Your task to perform on an android device: turn notification dots off Image 0: 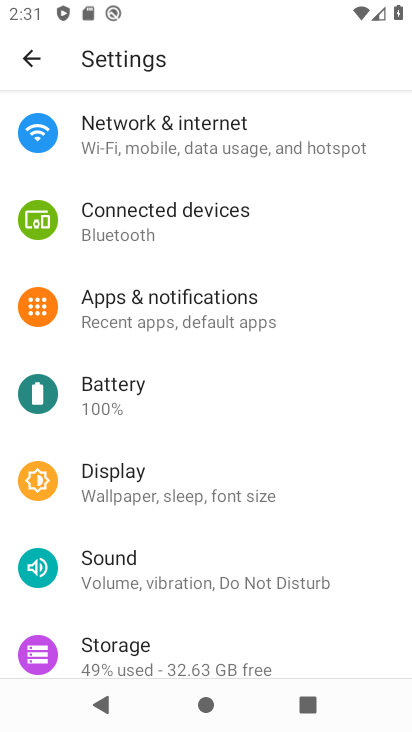
Step 0: press back button
Your task to perform on an android device: turn notification dots off Image 1: 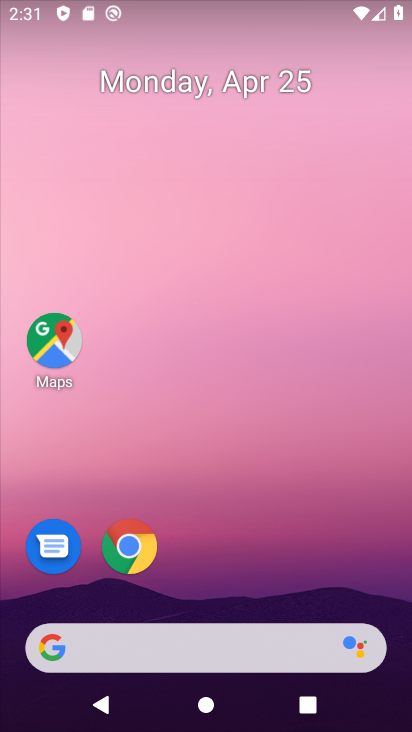
Step 1: drag from (178, 612) to (304, 43)
Your task to perform on an android device: turn notification dots off Image 2: 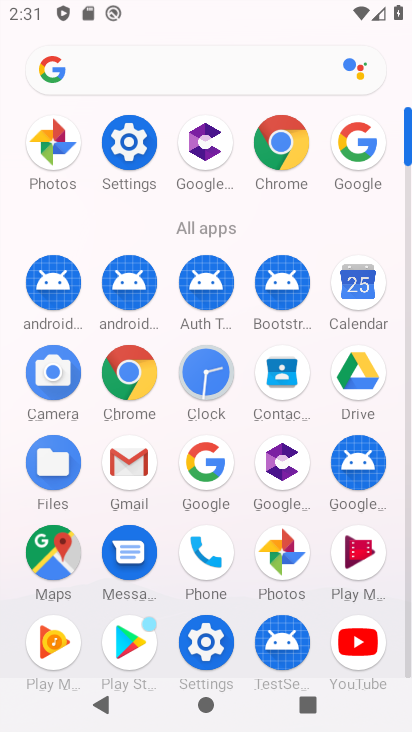
Step 2: click (209, 650)
Your task to perform on an android device: turn notification dots off Image 3: 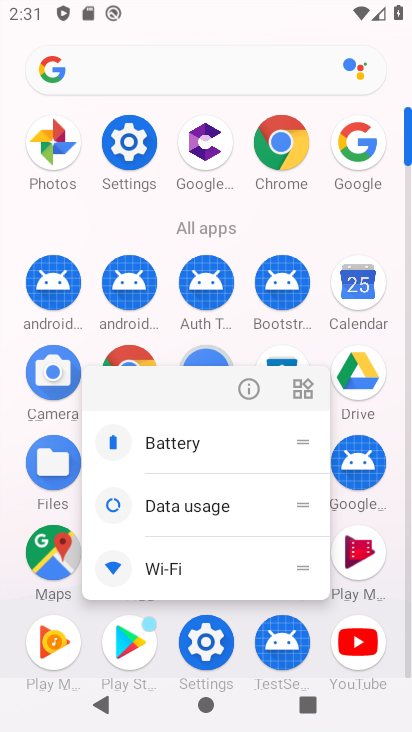
Step 3: click (208, 644)
Your task to perform on an android device: turn notification dots off Image 4: 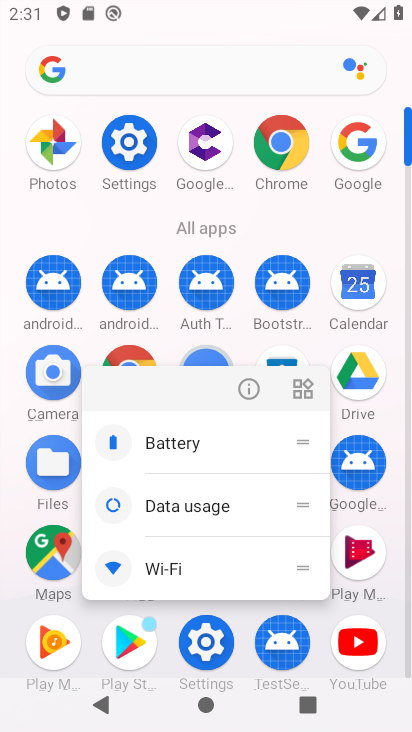
Step 4: click (204, 642)
Your task to perform on an android device: turn notification dots off Image 5: 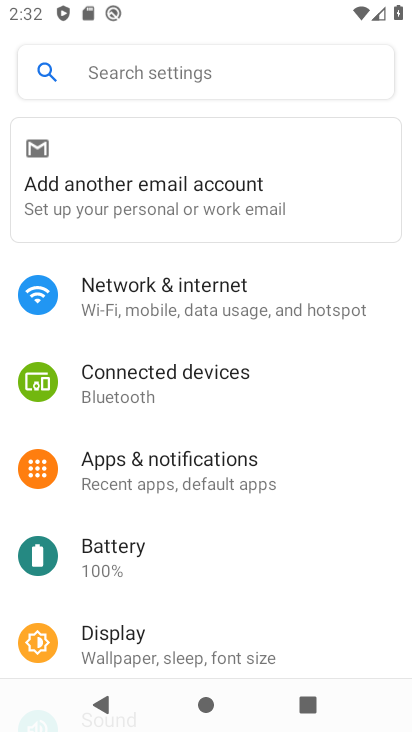
Step 5: drag from (183, 637) to (215, 440)
Your task to perform on an android device: turn notification dots off Image 6: 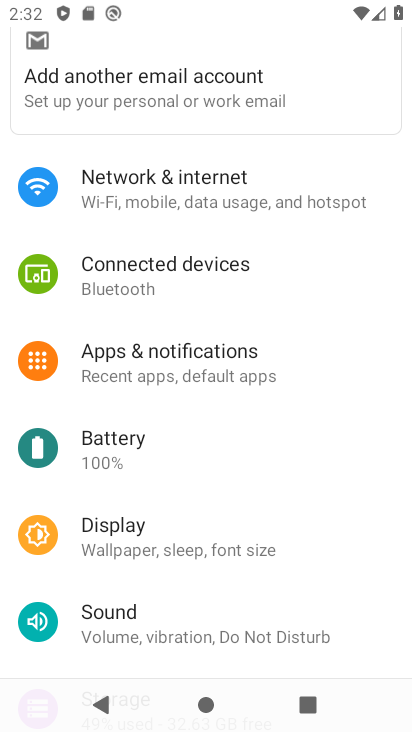
Step 6: click (227, 367)
Your task to perform on an android device: turn notification dots off Image 7: 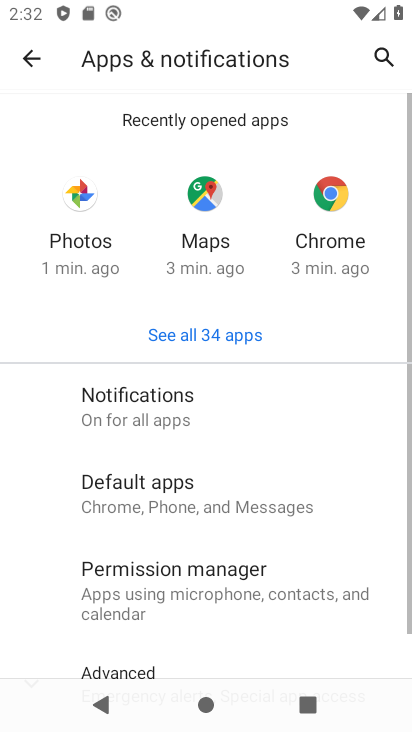
Step 7: drag from (213, 580) to (278, 298)
Your task to perform on an android device: turn notification dots off Image 8: 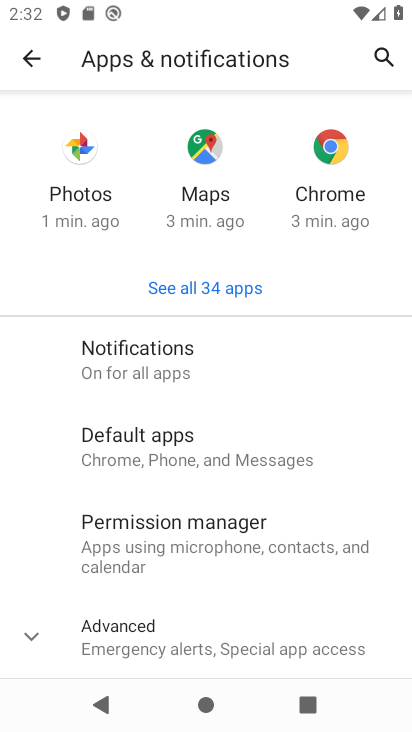
Step 8: click (237, 379)
Your task to perform on an android device: turn notification dots off Image 9: 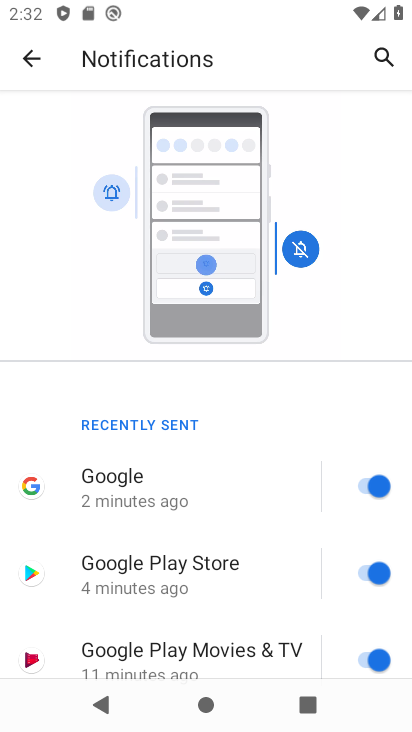
Step 9: drag from (188, 656) to (306, 239)
Your task to perform on an android device: turn notification dots off Image 10: 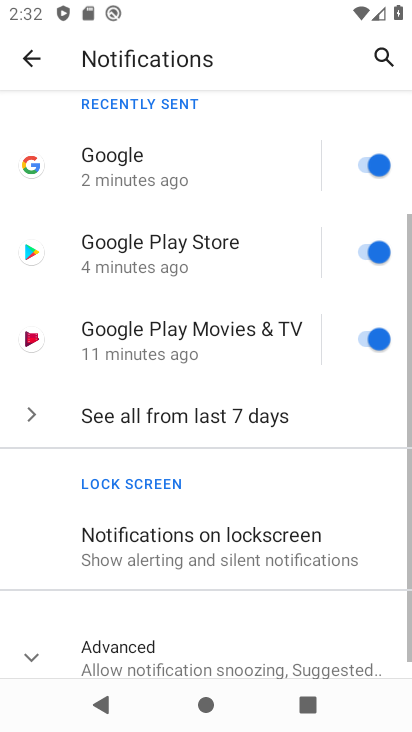
Step 10: drag from (208, 615) to (284, 302)
Your task to perform on an android device: turn notification dots off Image 11: 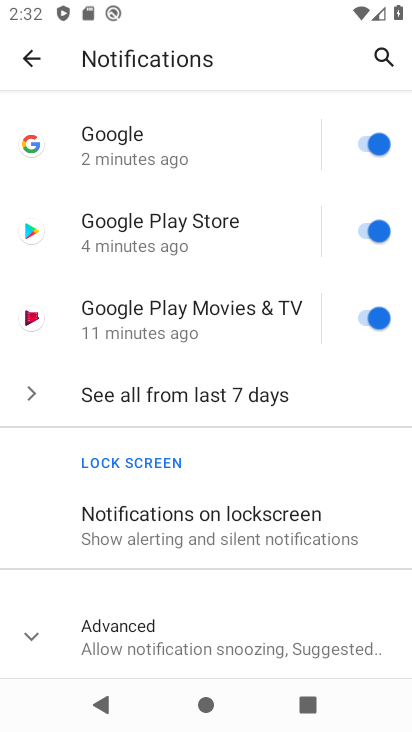
Step 11: drag from (200, 585) to (287, 301)
Your task to perform on an android device: turn notification dots off Image 12: 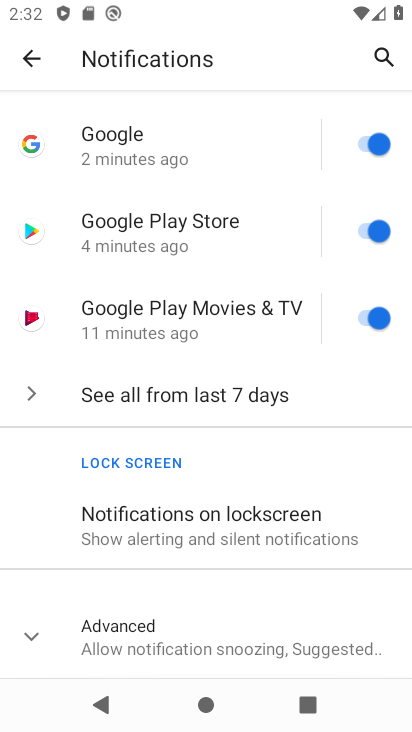
Step 12: click (179, 637)
Your task to perform on an android device: turn notification dots off Image 13: 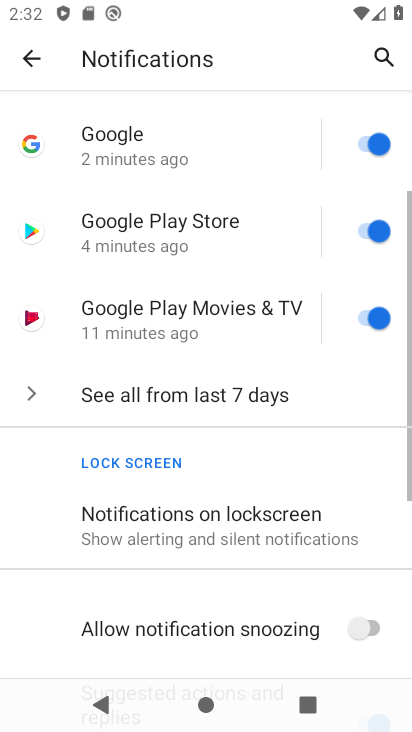
Step 13: drag from (193, 586) to (269, 223)
Your task to perform on an android device: turn notification dots off Image 14: 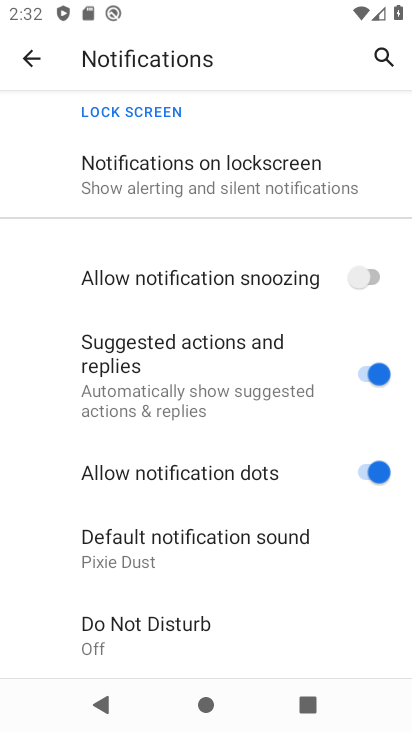
Step 14: click (370, 469)
Your task to perform on an android device: turn notification dots off Image 15: 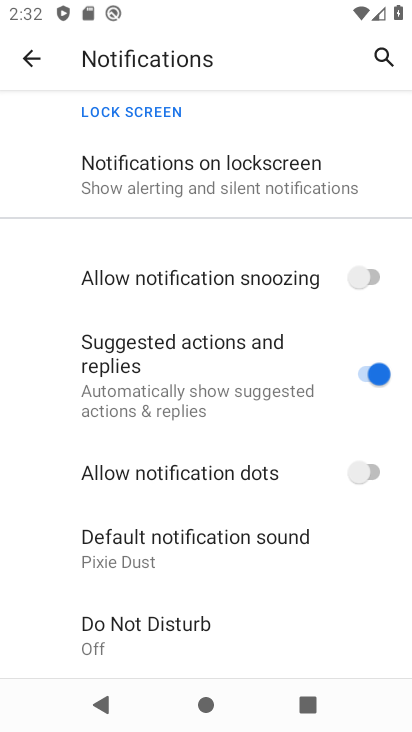
Step 15: task complete